Your task to perform on an android device: Go to notification settings Image 0: 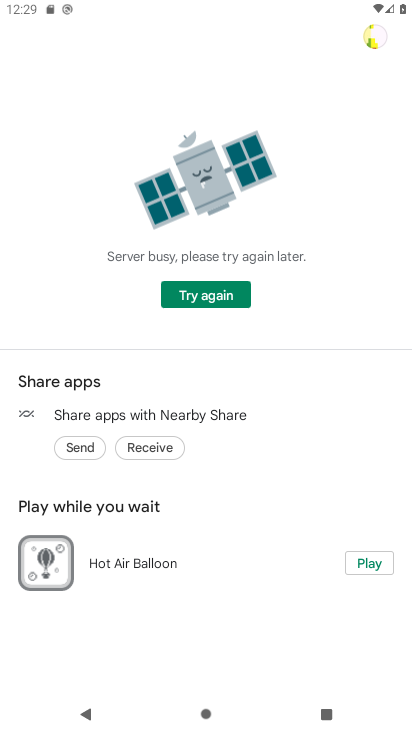
Step 0: press home button
Your task to perform on an android device: Go to notification settings Image 1: 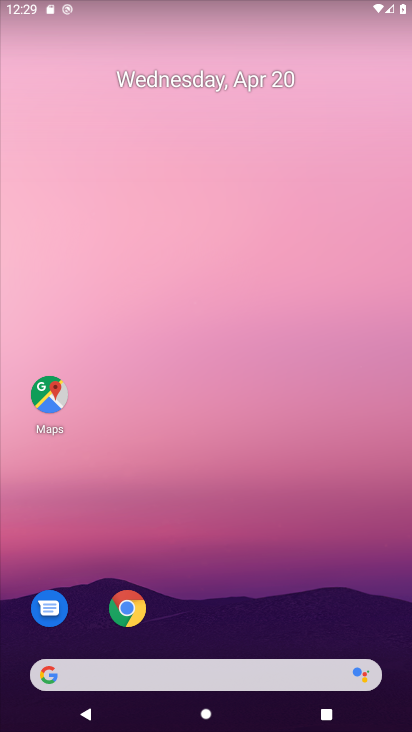
Step 1: drag from (209, 531) to (222, 224)
Your task to perform on an android device: Go to notification settings Image 2: 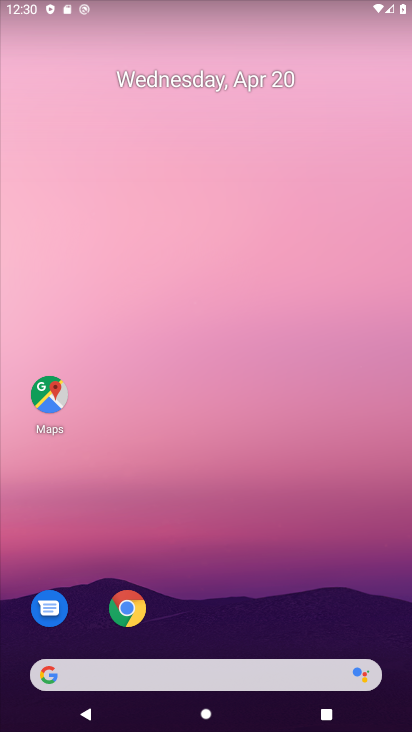
Step 2: drag from (209, 579) to (260, 133)
Your task to perform on an android device: Go to notification settings Image 3: 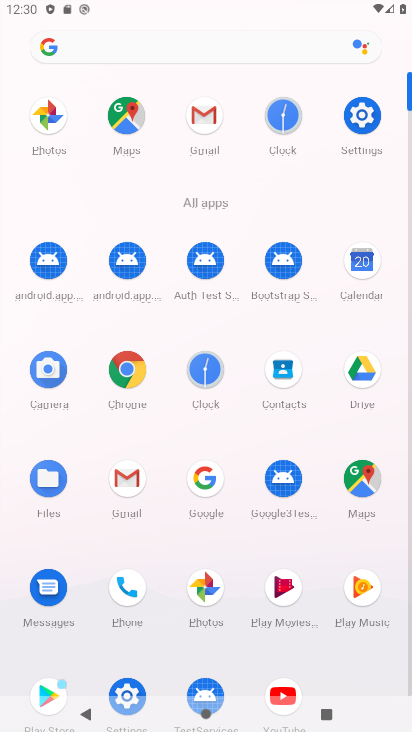
Step 3: click (361, 123)
Your task to perform on an android device: Go to notification settings Image 4: 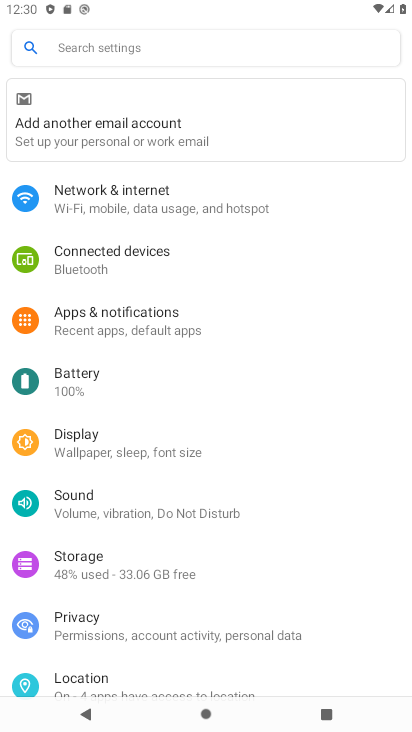
Step 4: drag from (148, 396) to (180, 248)
Your task to perform on an android device: Go to notification settings Image 5: 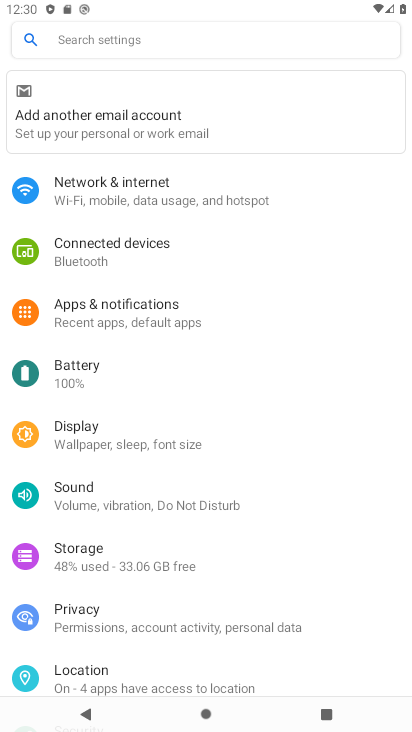
Step 5: drag from (200, 401) to (212, 271)
Your task to perform on an android device: Go to notification settings Image 6: 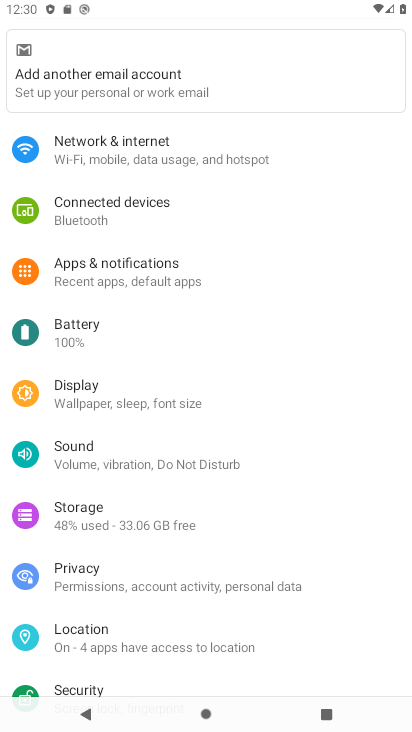
Step 6: click (167, 264)
Your task to perform on an android device: Go to notification settings Image 7: 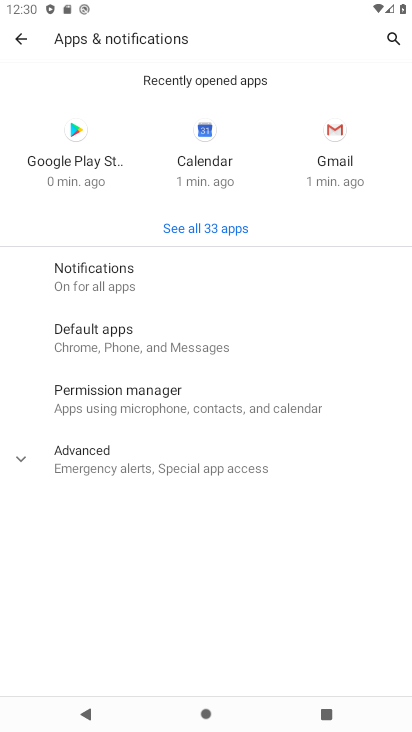
Step 7: click (131, 273)
Your task to perform on an android device: Go to notification settings Image 8: 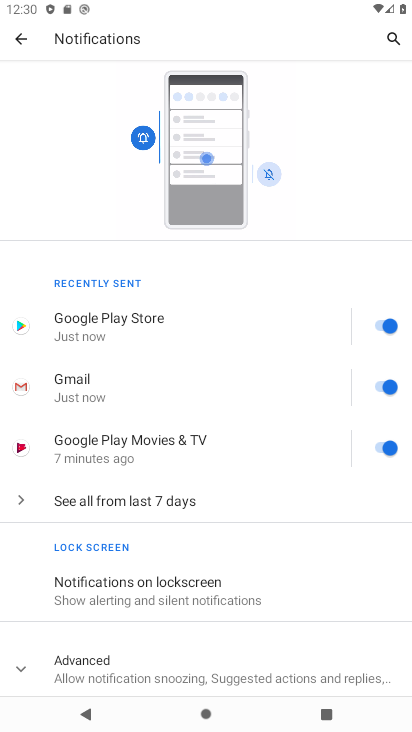
Step 8: task complete